Your task to perform on an android device: allow notifications from all sites in the chrome app Image 0: 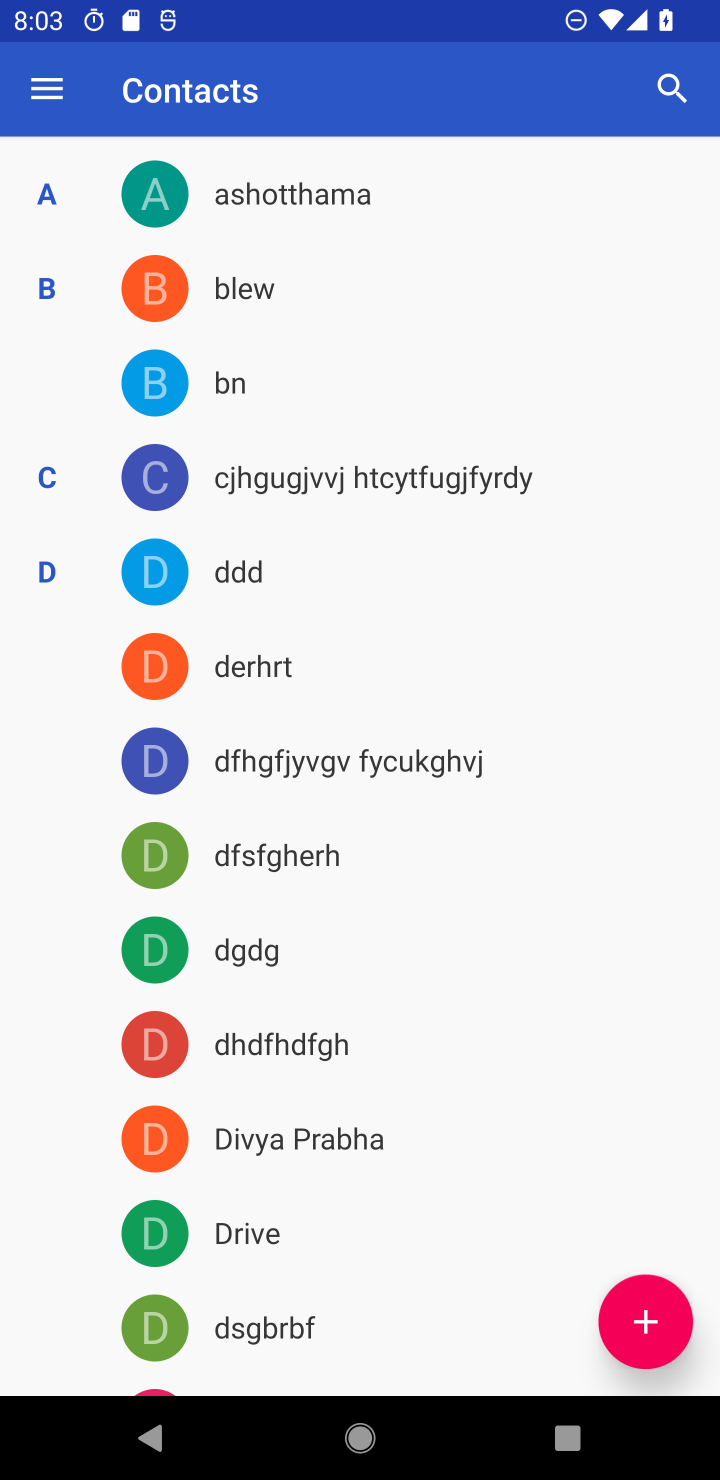
Step 0: press home button
Your task to perform on an android device: allow notifications from all sites in the chrome app Image 1: 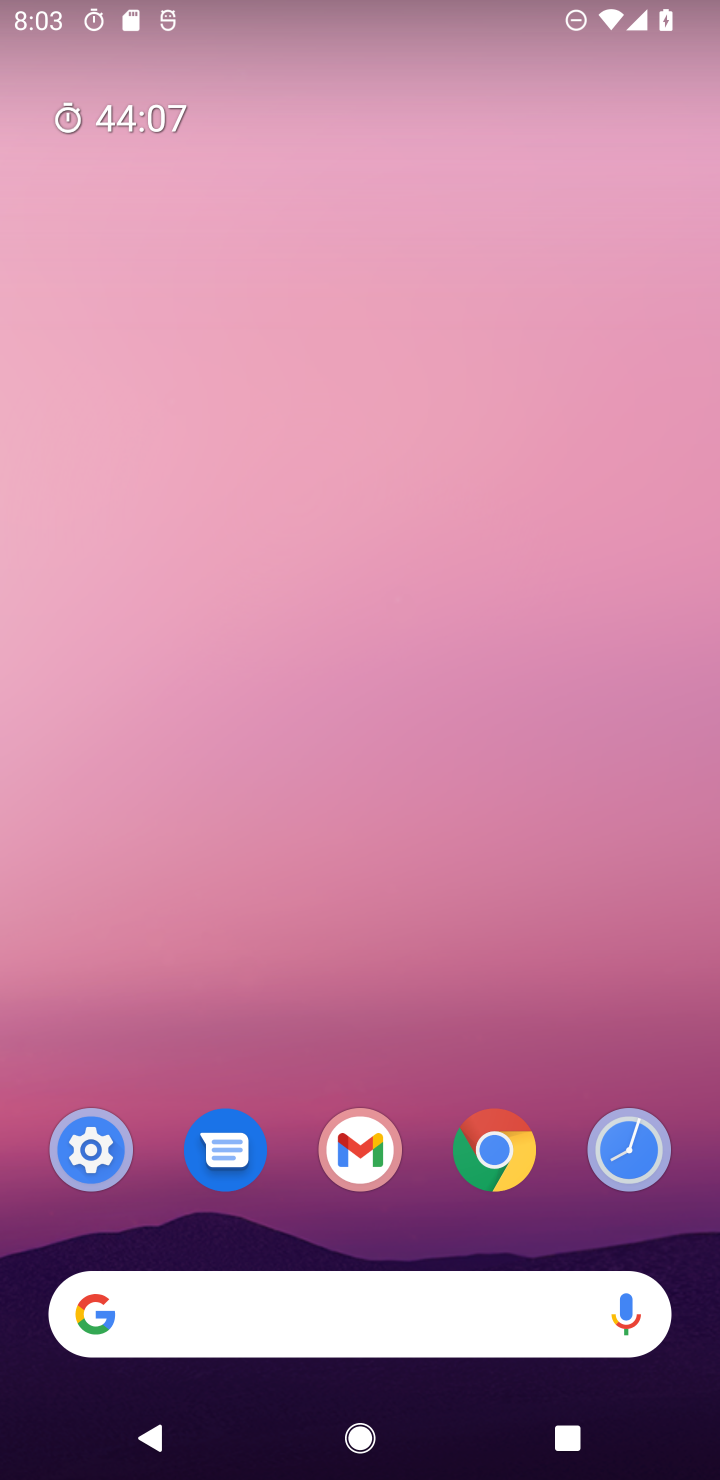
Step 1: drag from (394, 1289) to (419, 55)
Your task to perform on an android device: allow notifications from all sites in the chrome app Image 2: 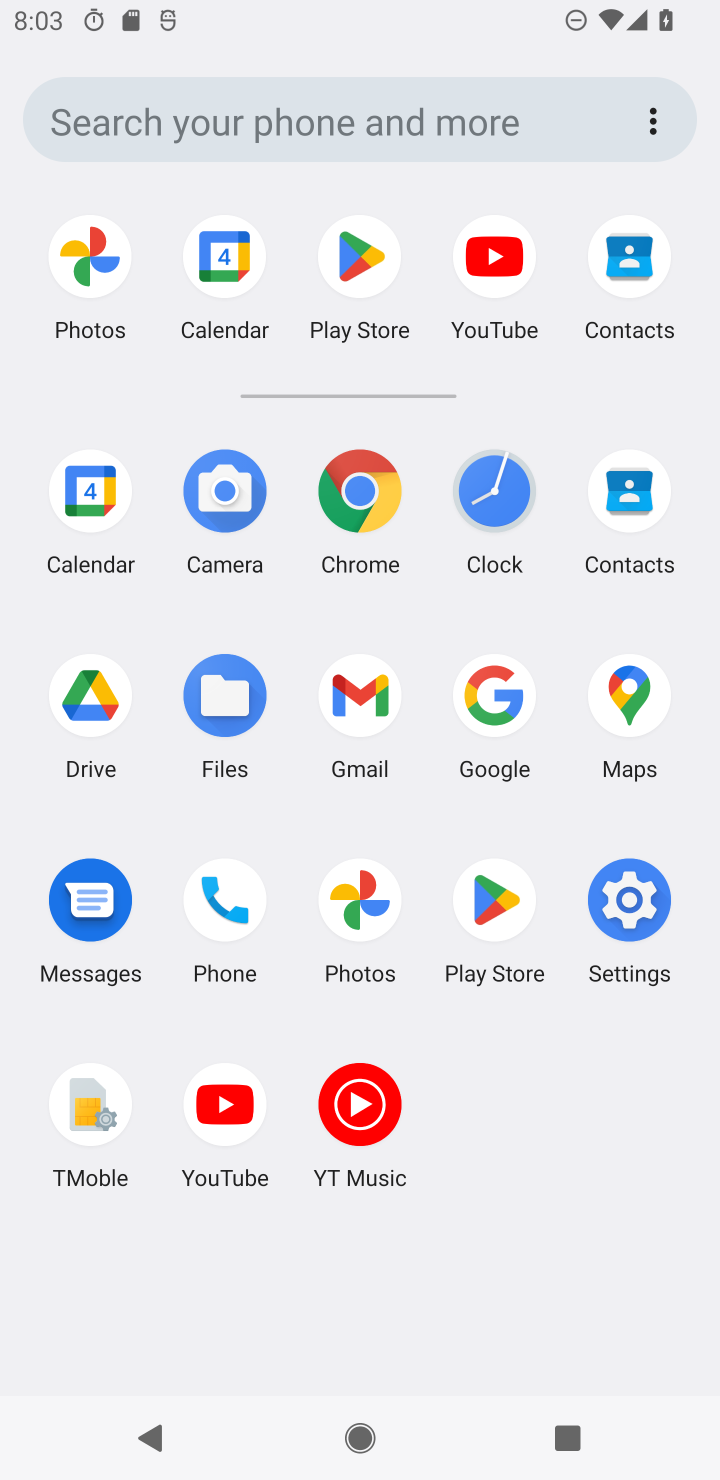
Step 2: click (351, 468)
Your task to perform on an android device: allow notifications from all sites in the chrome app Image 3: 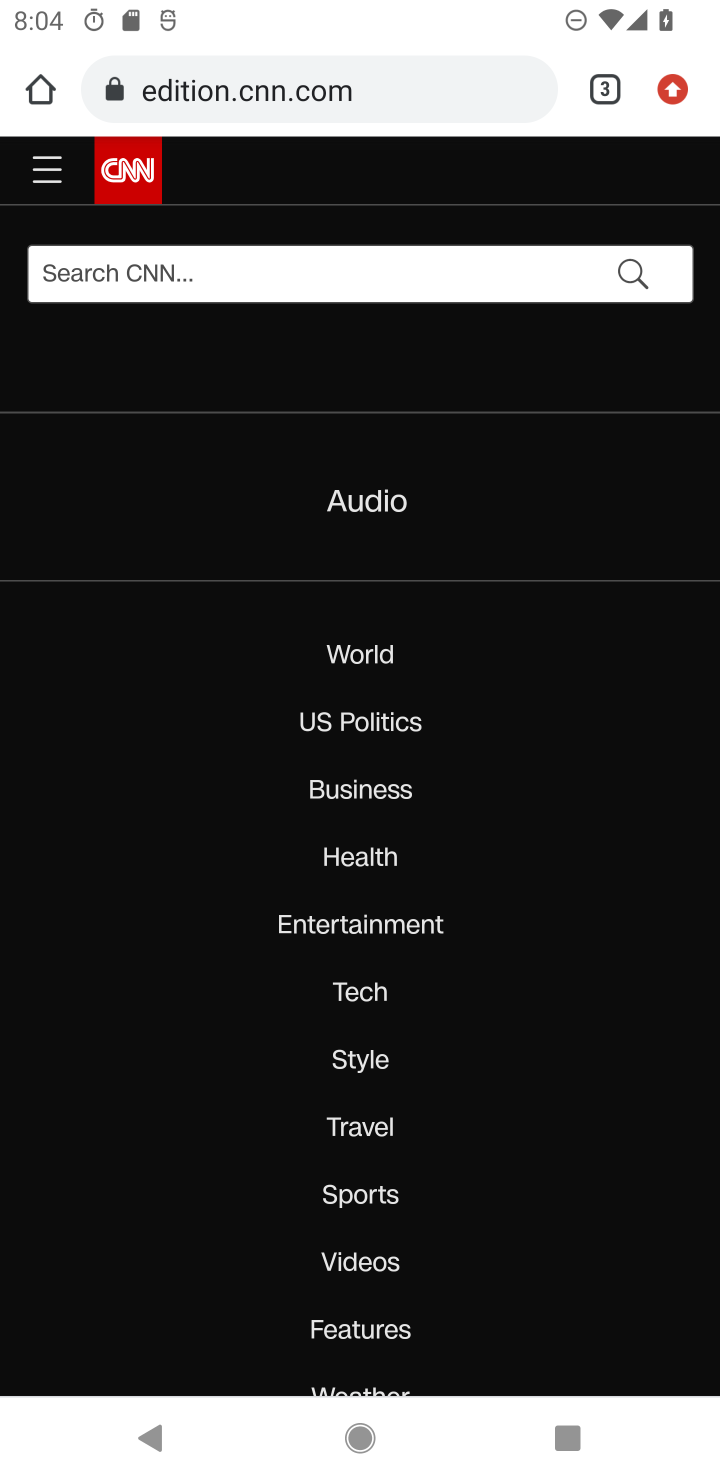
Step 3: click (667, 78)
Your task to perform on an android device: allow notifications from all sites in the chrome app Image 4: 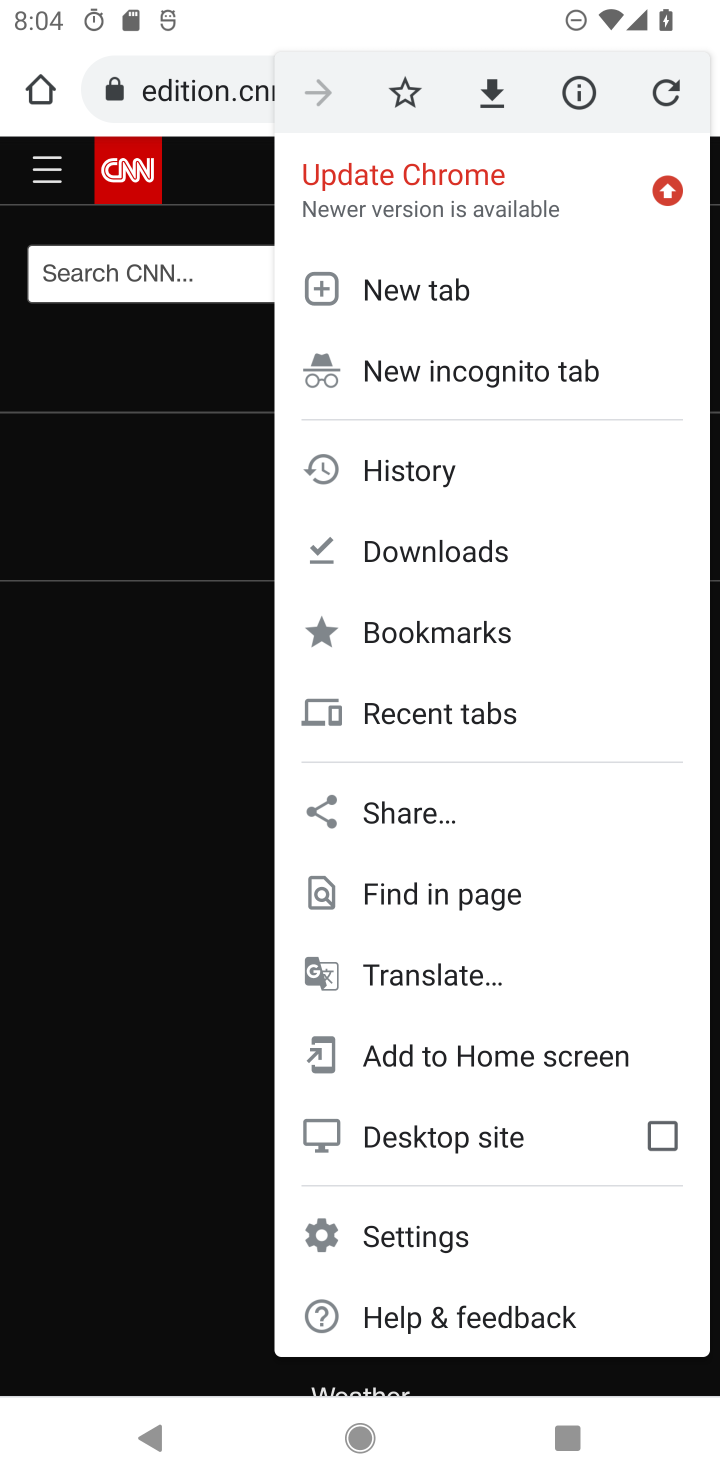
Step 4: click (402, 1238)
Your task to perform on an android device: allow notifications from all sites in the chrome app Image 5: 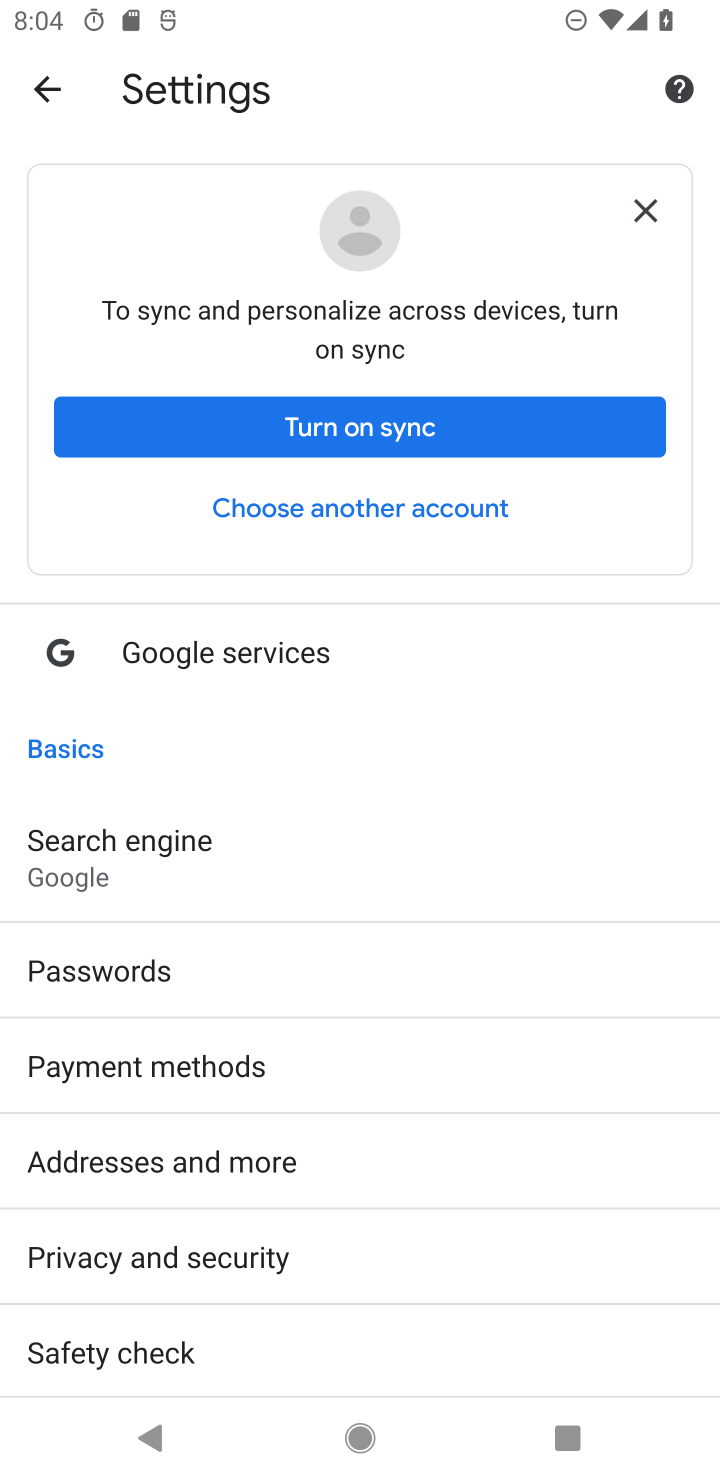
Step 5: drag from (247, 1312) to (273, 689)
Your task to perform on an android device: allow notifications from all sites in the chrome app Image 6: 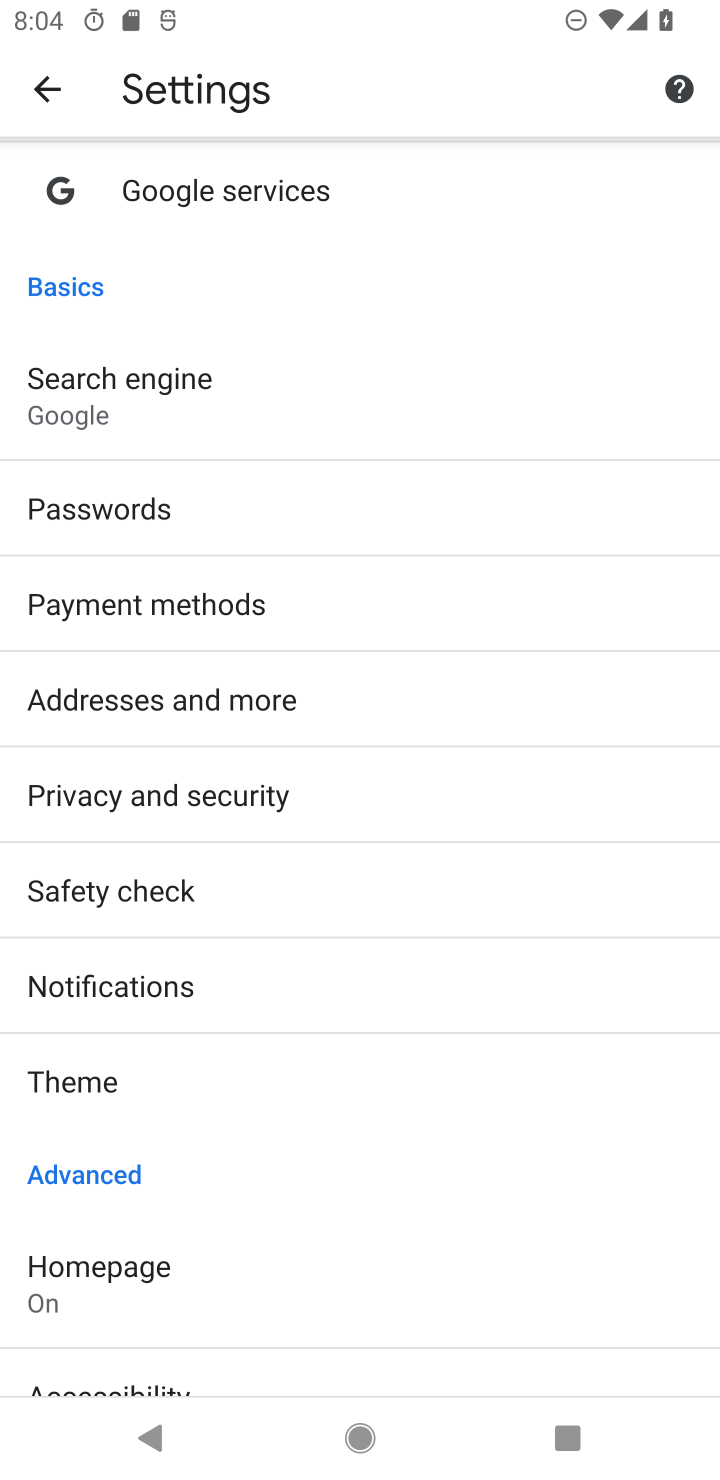
Step 6: drag from (330, 1186) to (443, 219)
Your task to perform on an android device: allow notifications from all sites in the chrome app Image 7: 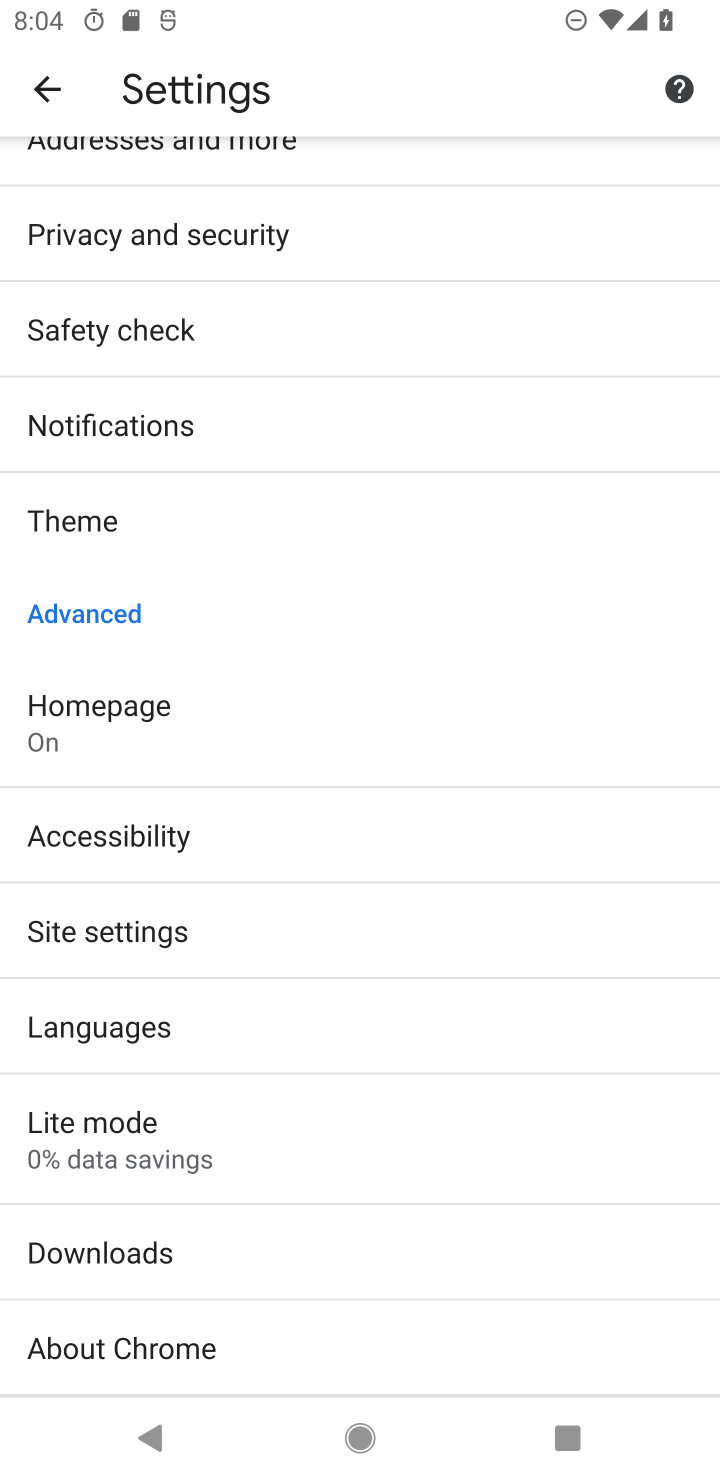
Step 7: click (162, 912)
Your task to perform on an android device: allow notifications from all sites in the chrome app Image 8: 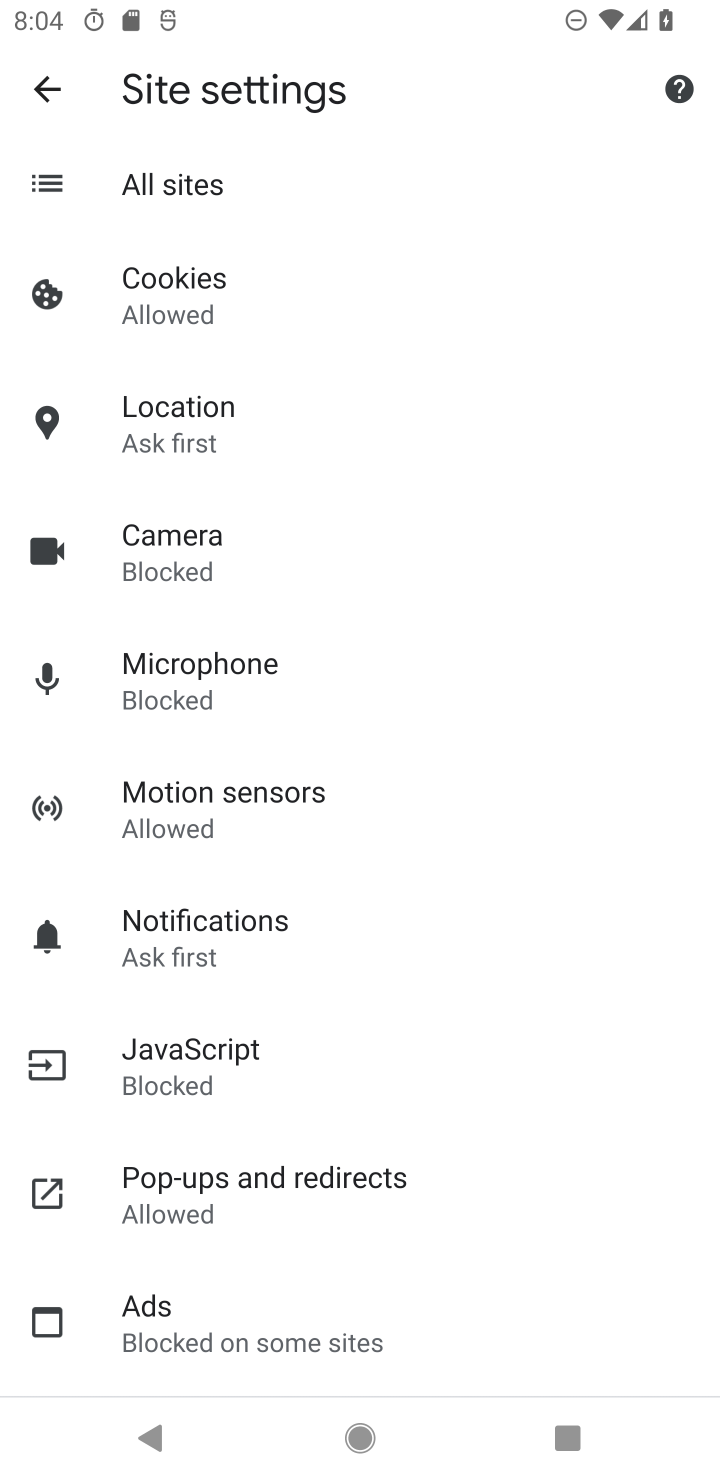
Step 8: click (185, 930)
Your task to perform on an android device: allow notifications from all sites in the chrome app Image 9: 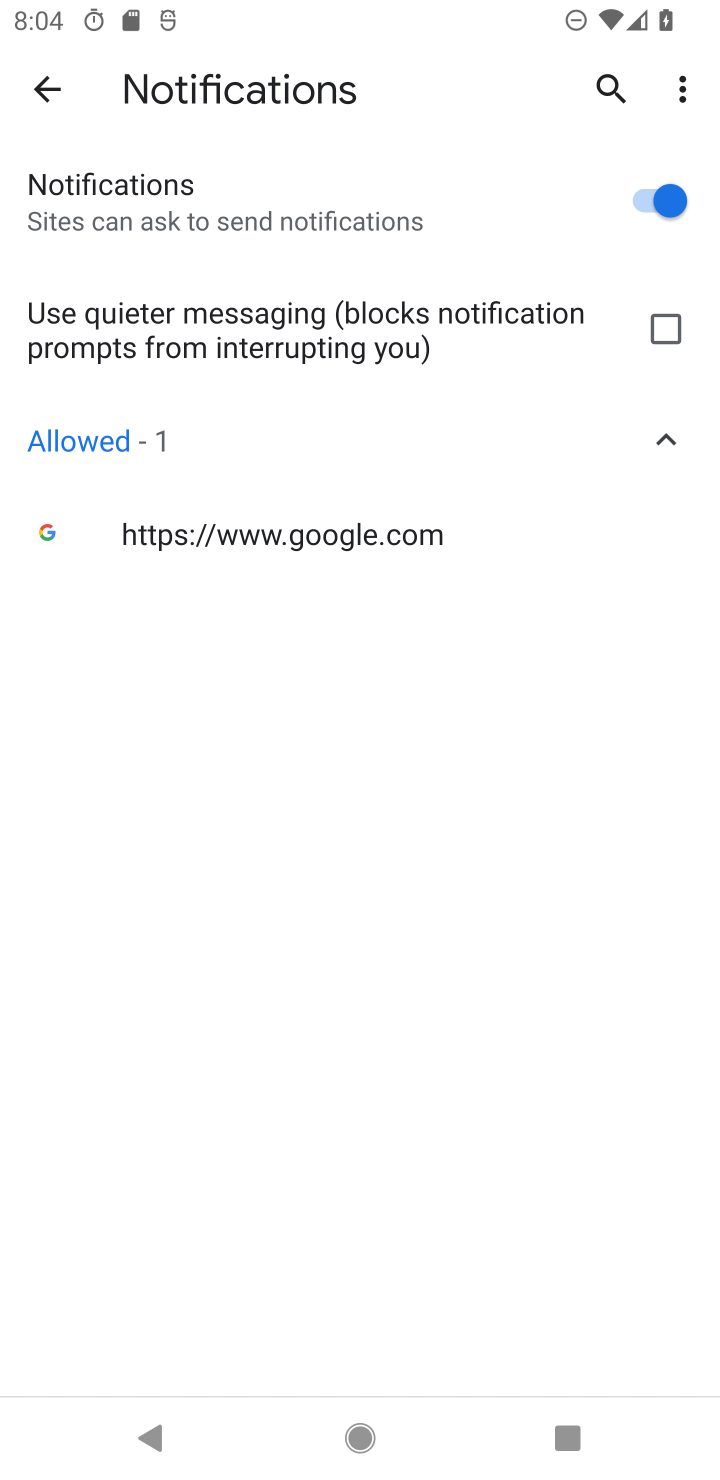
Step 9: task complete